Your task to perform on an android device: turn on priority inbox in the gmail app Image 0: 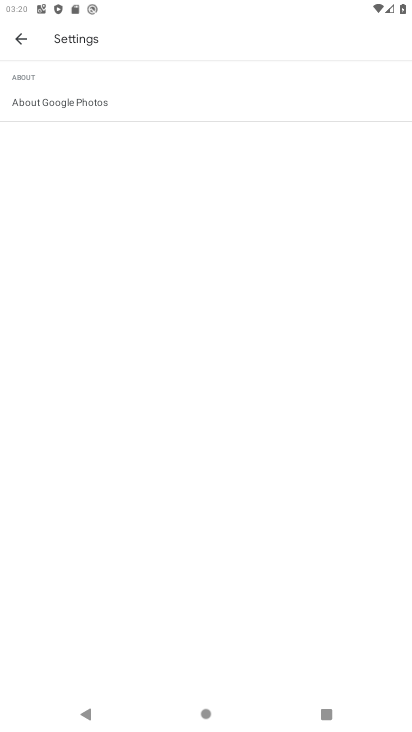
Step 0: press home button
Your task to perform on an android device: turn on priority inbox in the gmail app Image 1: 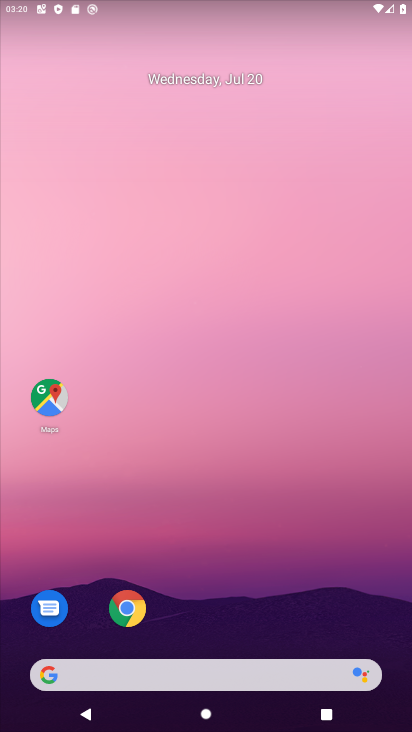
Step 1: drag from (382, 684) to (291, 10)
Your task to perform on an android device: turn on priority inbox in the gmail app Image 2: 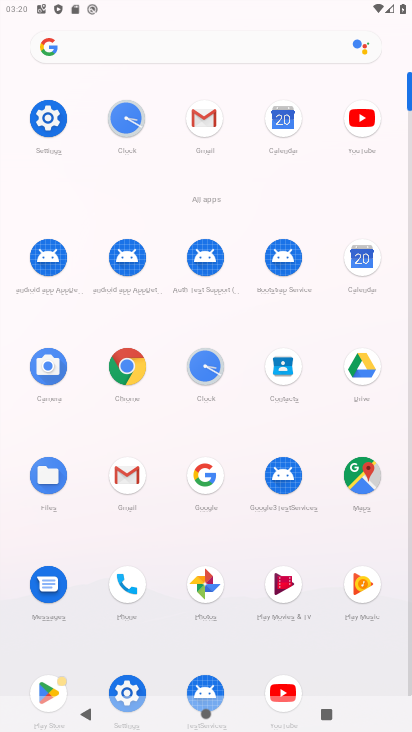
Step 2: click (122, 491)
Your task to perform on an android device: turn on priority inbox in the gmail app Image 3: 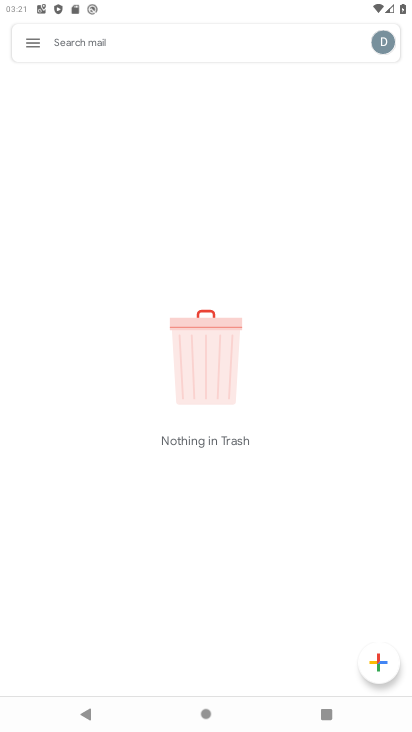
Step 3: click (33, 40)
Your task to perform on an android device: turn on priority inbox in the gmail app Image 4: 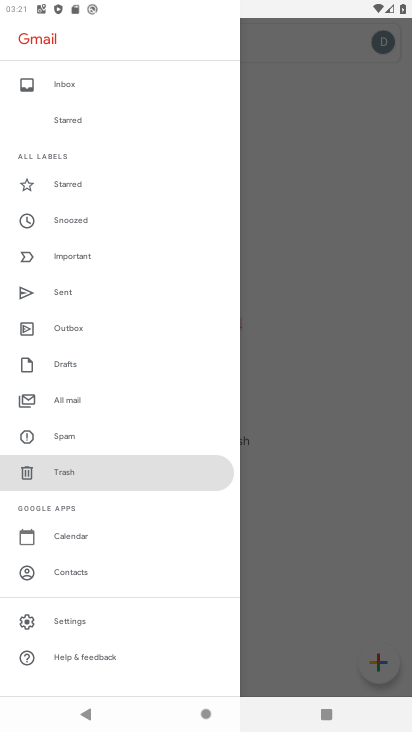
Step 4: click (57, 623)
Your task to perform on an android device: turn on priority inbox in the gmail app Image 5: 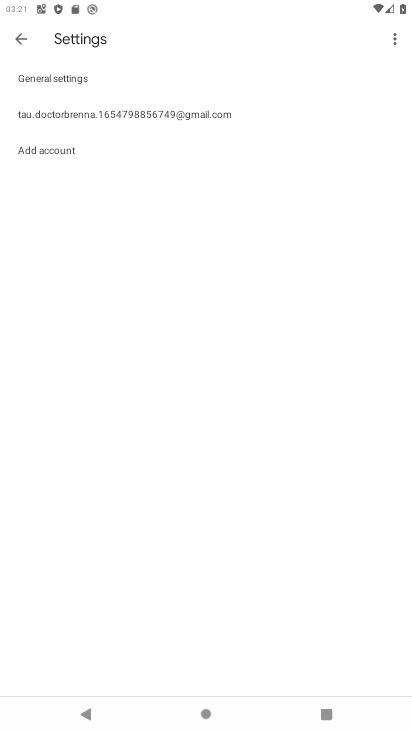
Step 5: click (32, 114)
Your task to perform on an android device: turn on priority inbox in the gmail app Image 6: 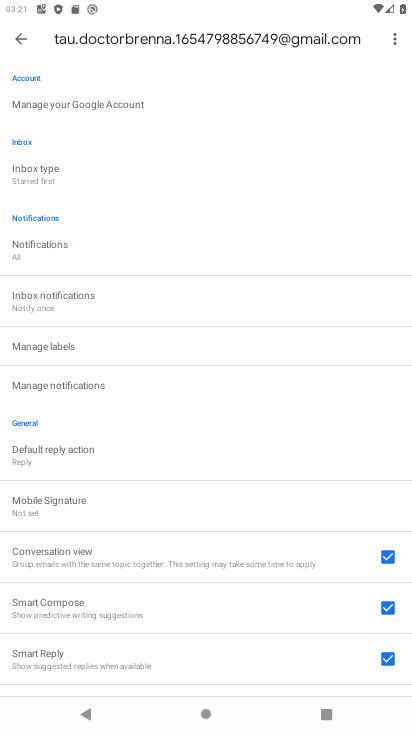
Step 6: click (39, 174)
Your task to perform on an android device: turn on priority inbox in the gmail app Image 7: 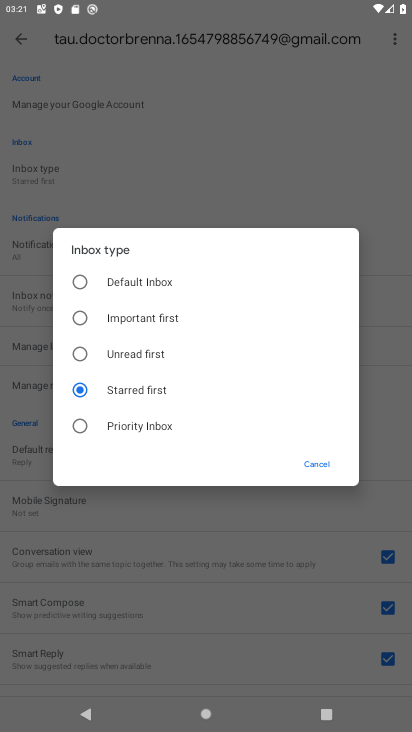
Step 7: click (112, 426)
Your task to perform on an android device: turn on priority inbox in the gmail app Image 8: 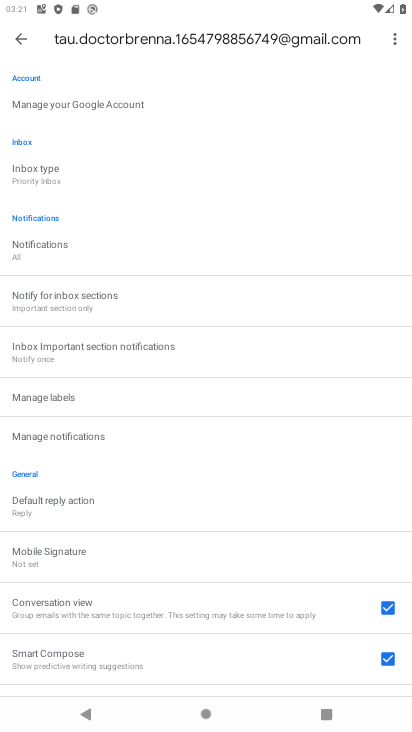
Step 8: task complete